Your task to perform on an android device: open app "WhatsApp Messenger" Image 0: 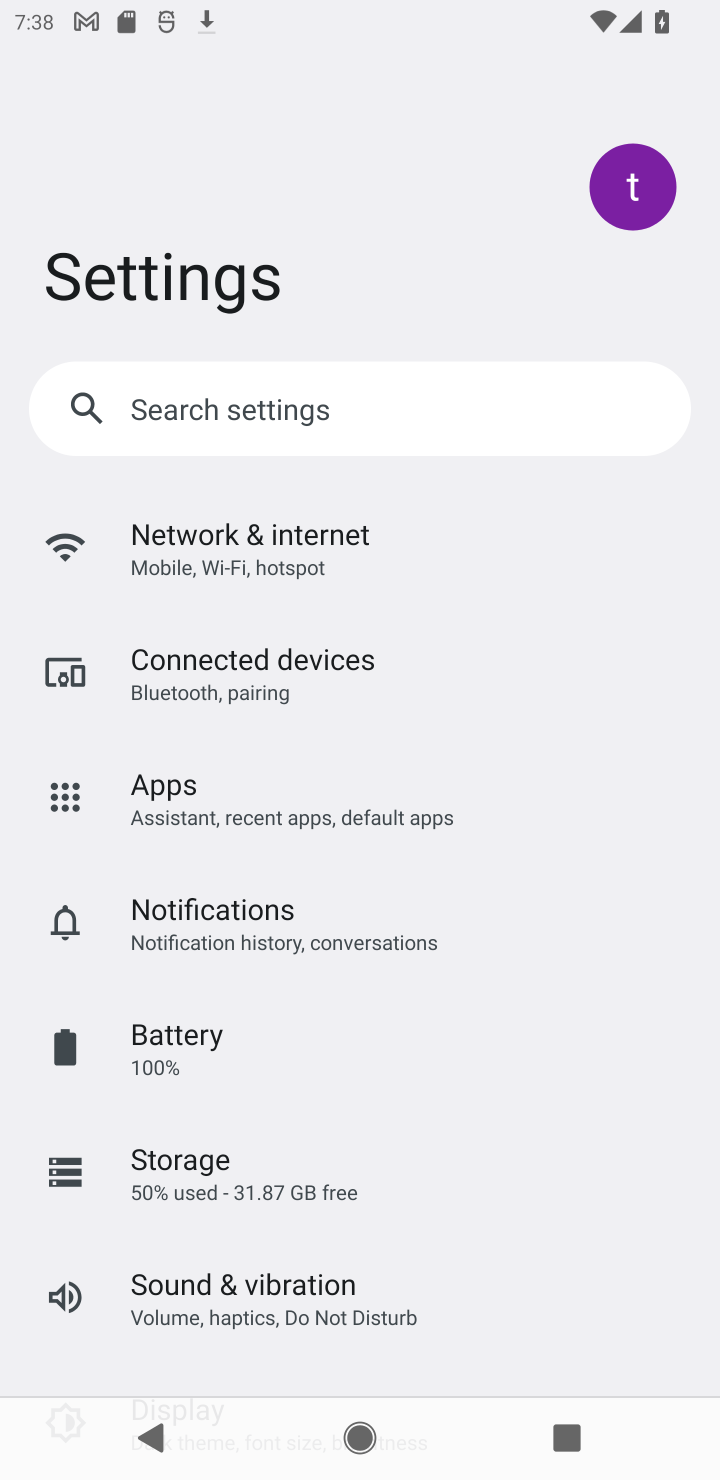
Step 0: press home button
Your task to perform on an android device: open app "WhatsApp Messenger" Image 1: 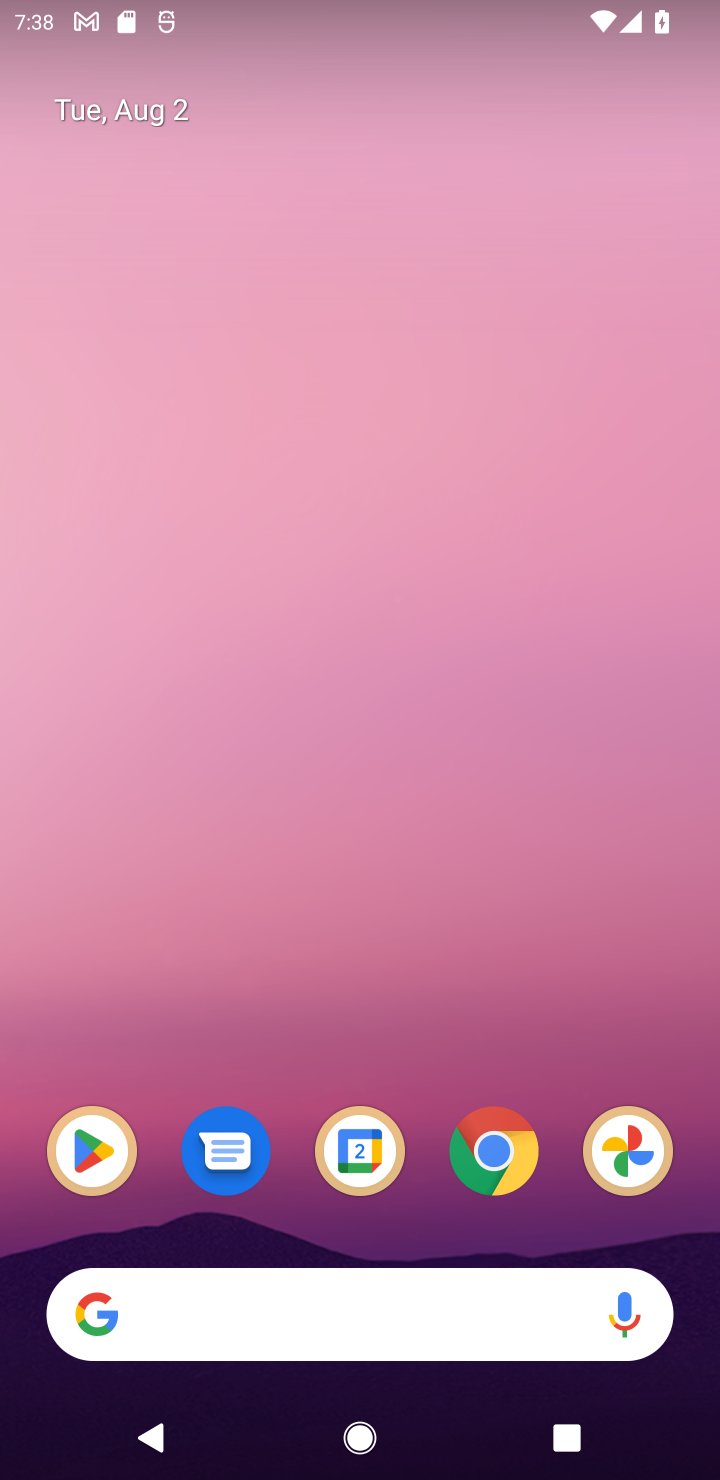
Step 1: drag from (406, 1041) to (673, 771)
Your task to perform on an android device: open app "WhatsApp Messenger" Image 2: 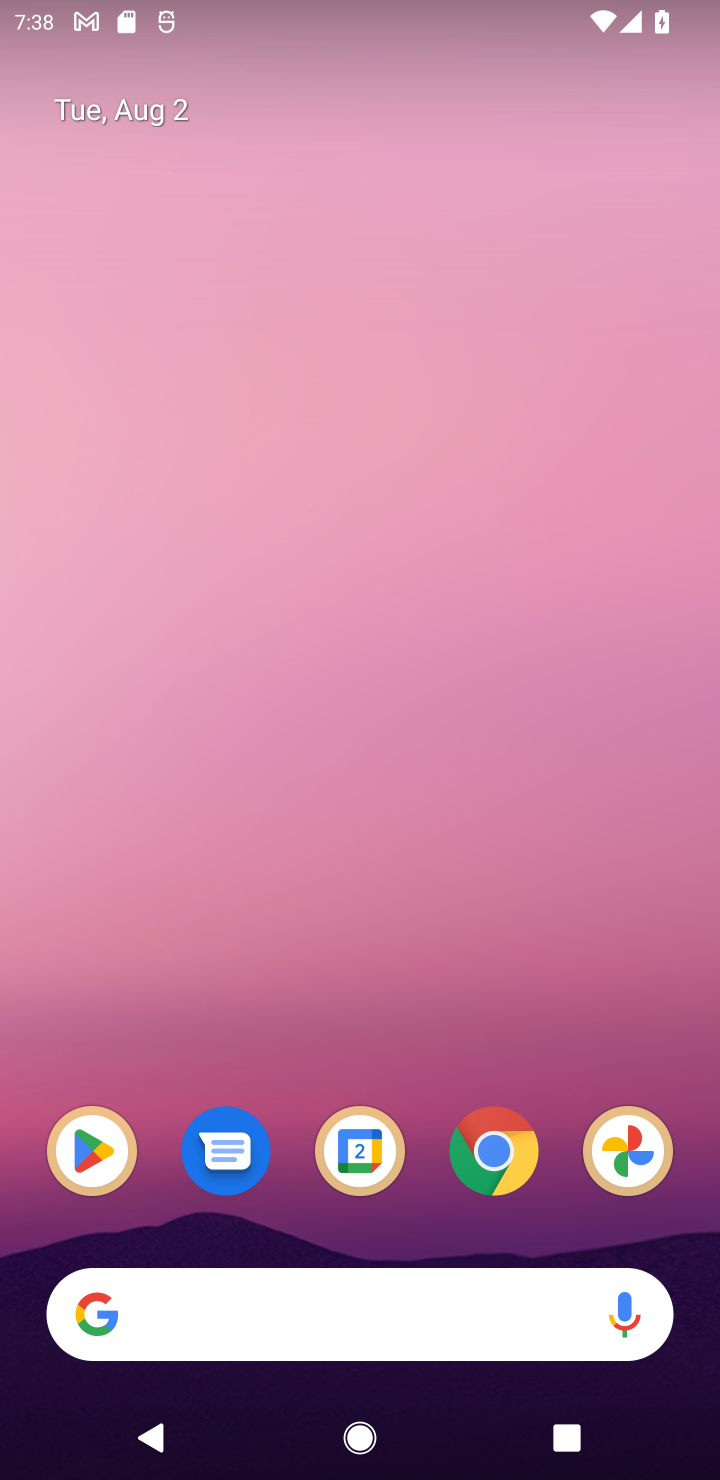
Step 2: click (76, 1184)
Your task to perform on an android device: open app "WhatsApp Messenger" Image 3: 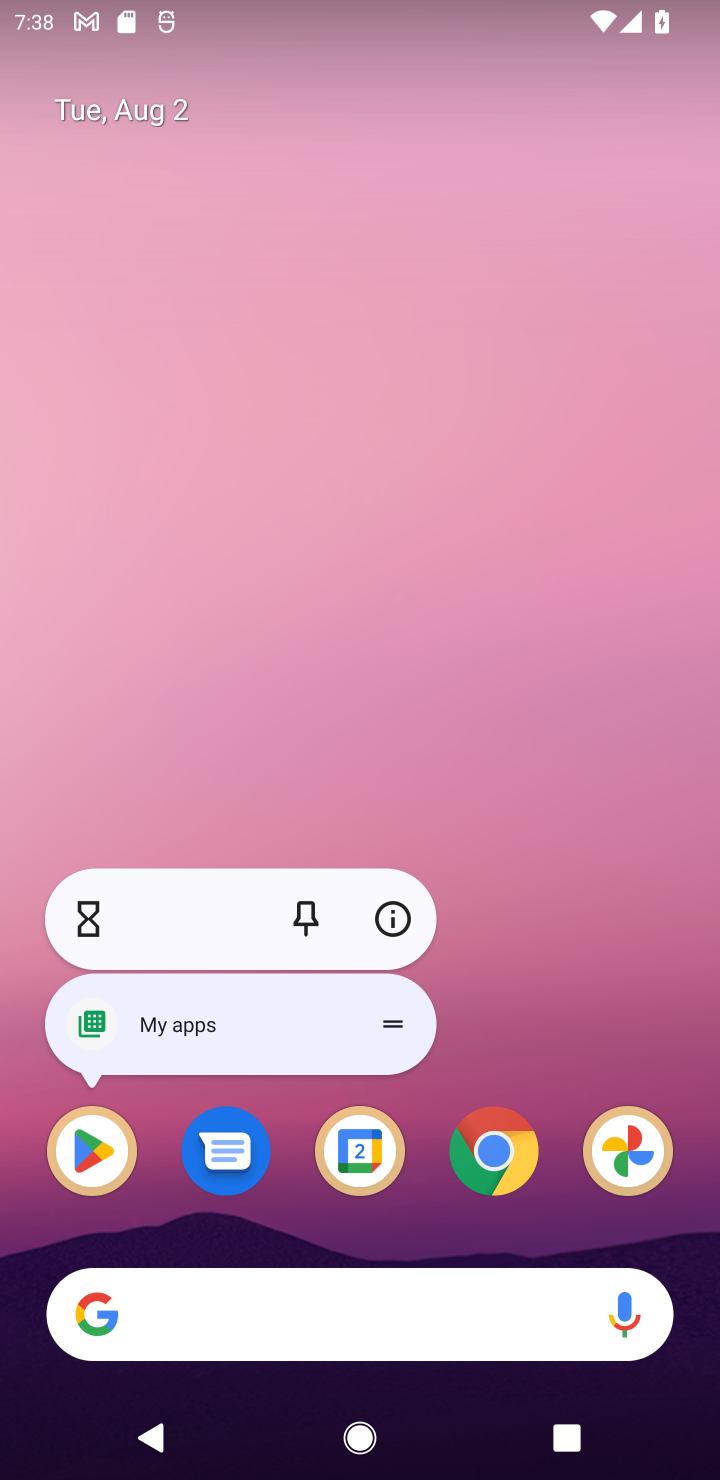
Step 3: click (91, 1168)
Your task to perform on an android device: open app "WhatsApp Messenger" Image 4: 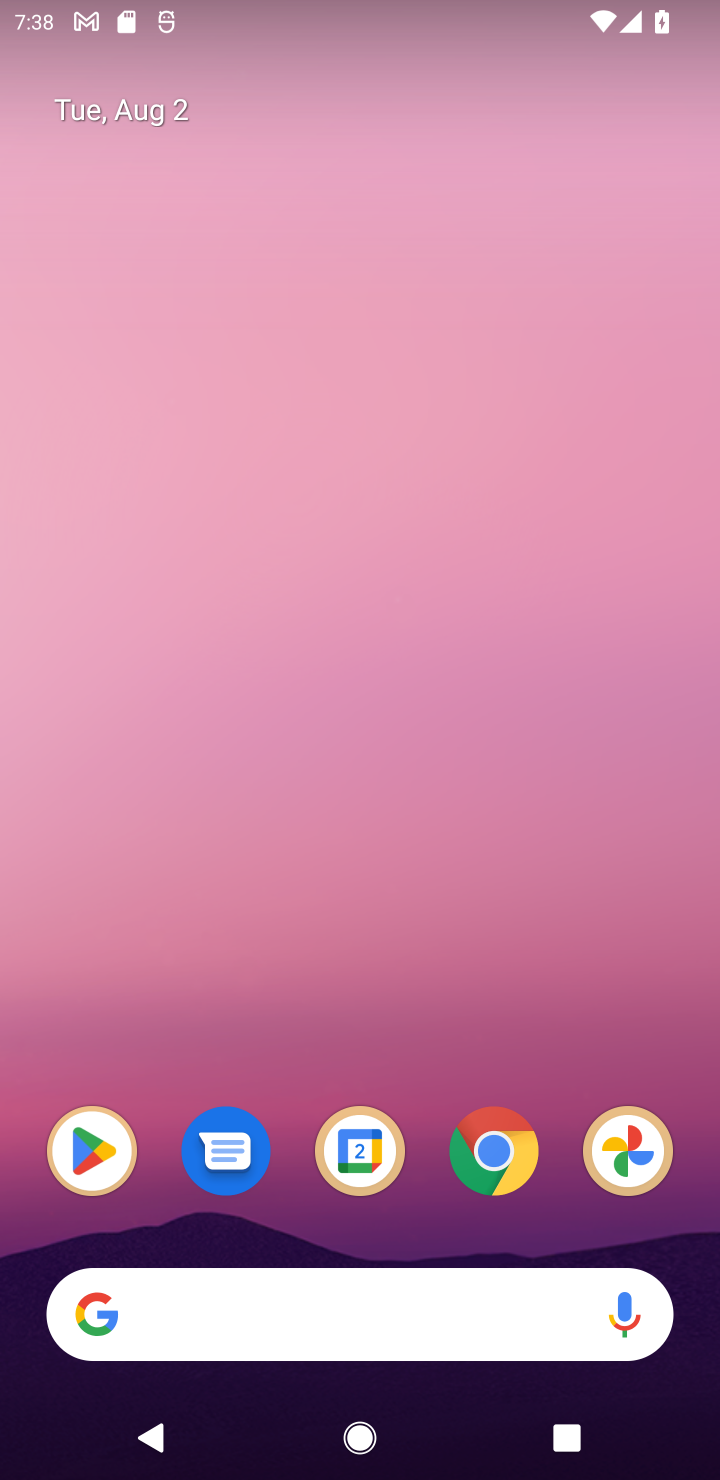
Step 4: click (91, 1168)
Your task to perform on an android device: open app "WhatsApp Messenger" Image 5: 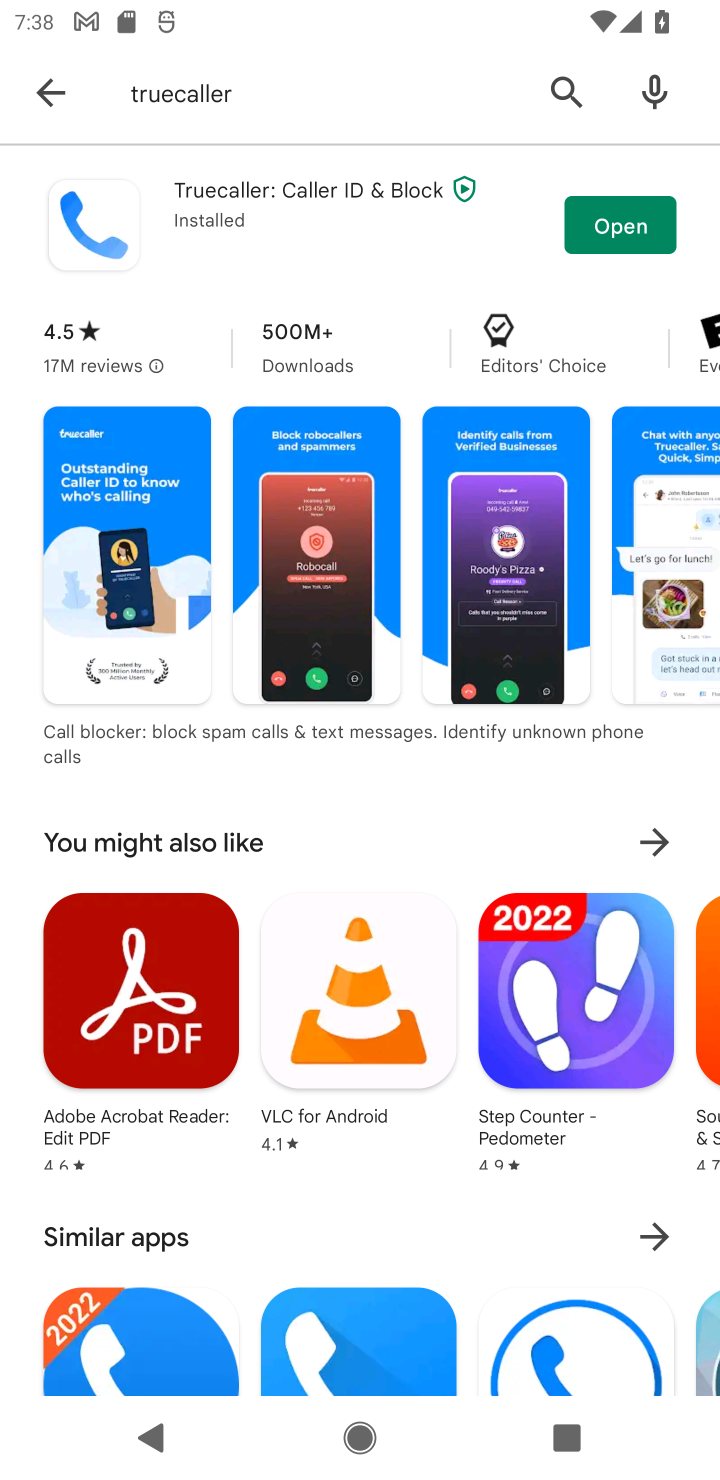
Step 5: click (91, 89)
Your task to perform on an android device: open app "WhatsApp Messenger" Image 6: 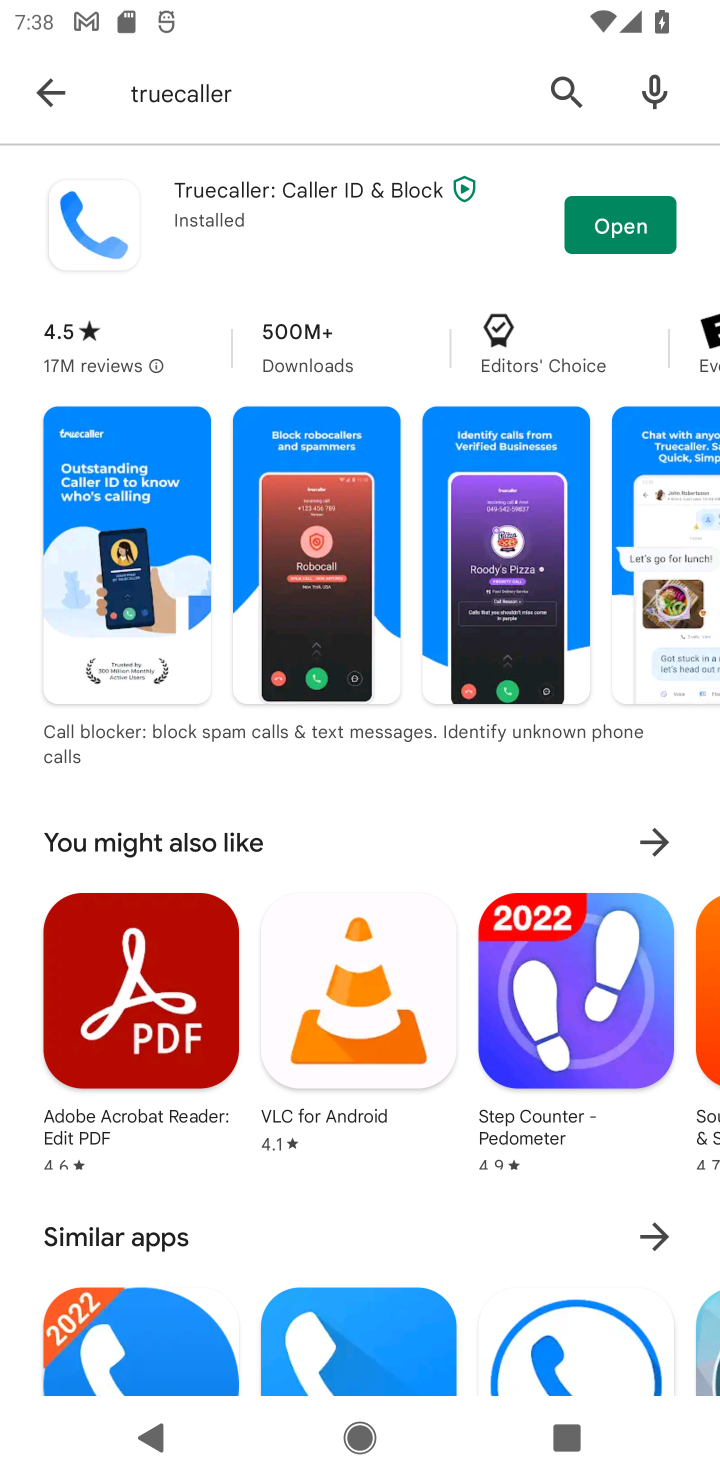
Step 6: click (46, 112)
Your task to perform on an android device: open app "WhatsApp Messenger" Image 7: 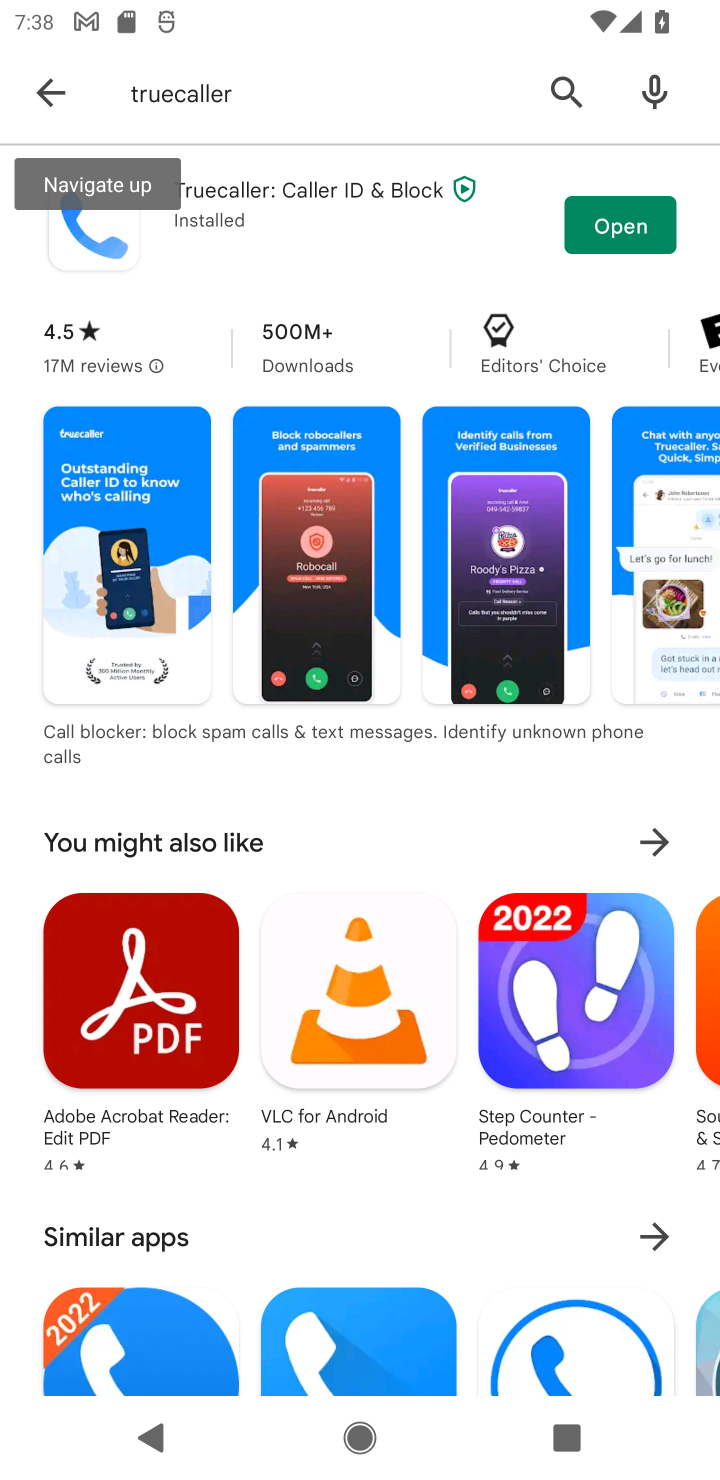
Step 7: click (46, 112)
Your task to perform on an android device: open app "WhatsApp Messenger" Image 8: 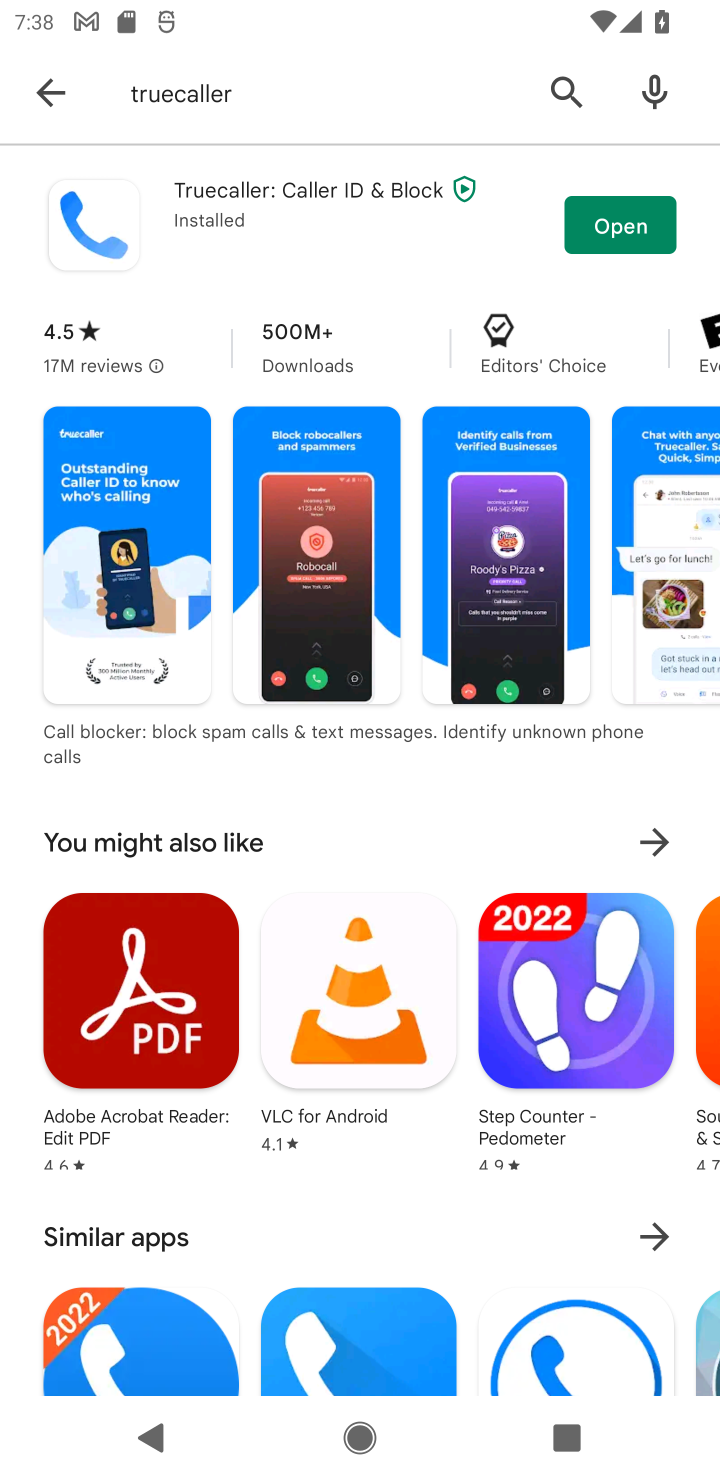
Step 8: click (46, 112)
Your task to perform on an android device: open app "WhatsApp Messenger" Image 9: 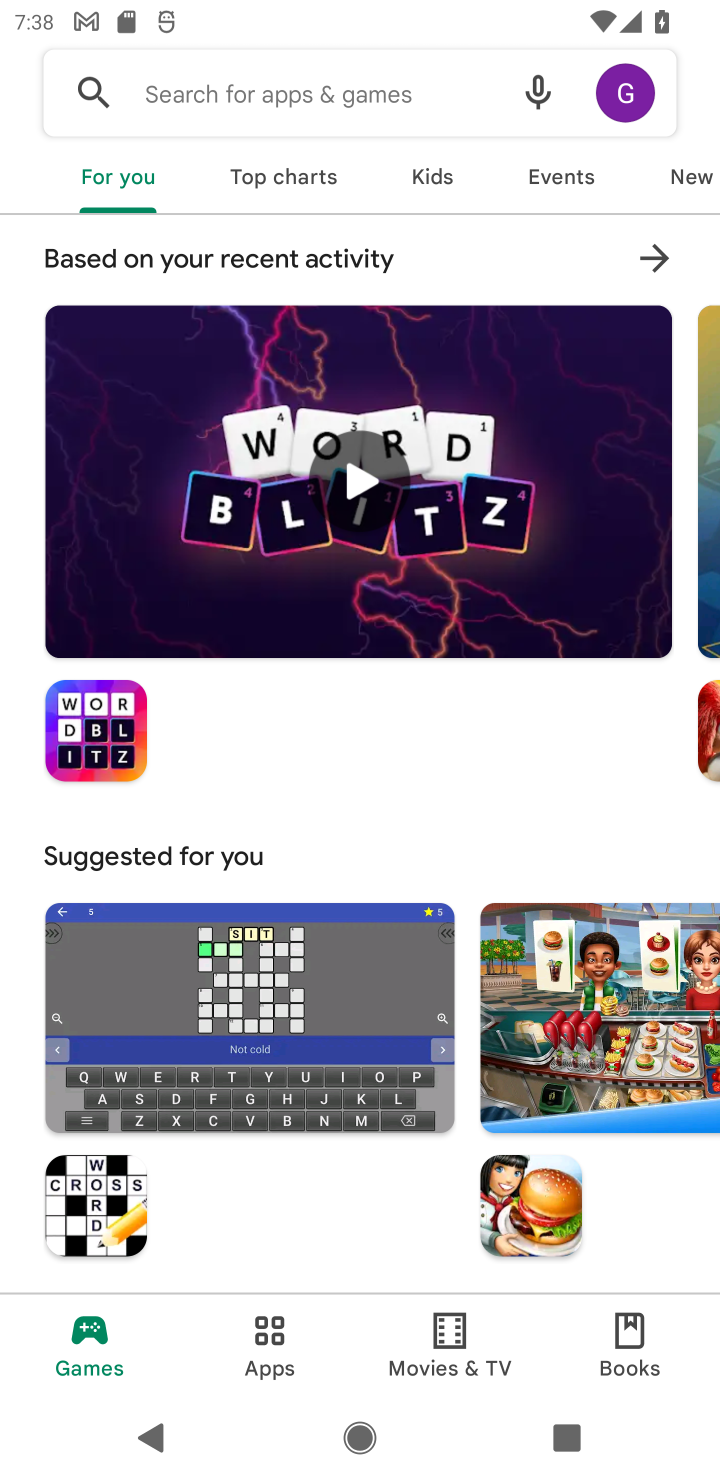
Step 9: click (355, 87)
Your task to perform on an android device: open app "WhatsApp Messenger" Image 10: 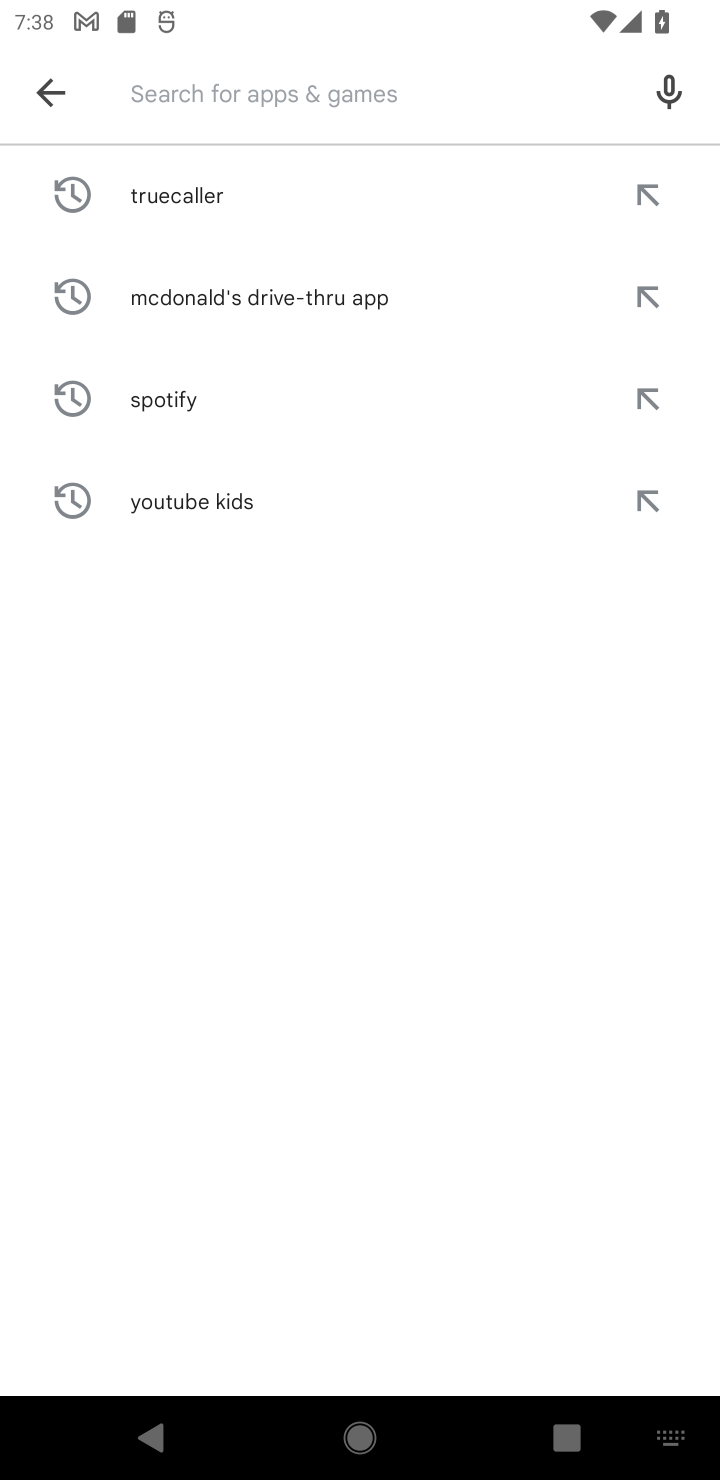
Step 10: type "WhatsApp Messenger"
Your task to perform on an android device: open app "WhatsApp Messenger" Image 11: 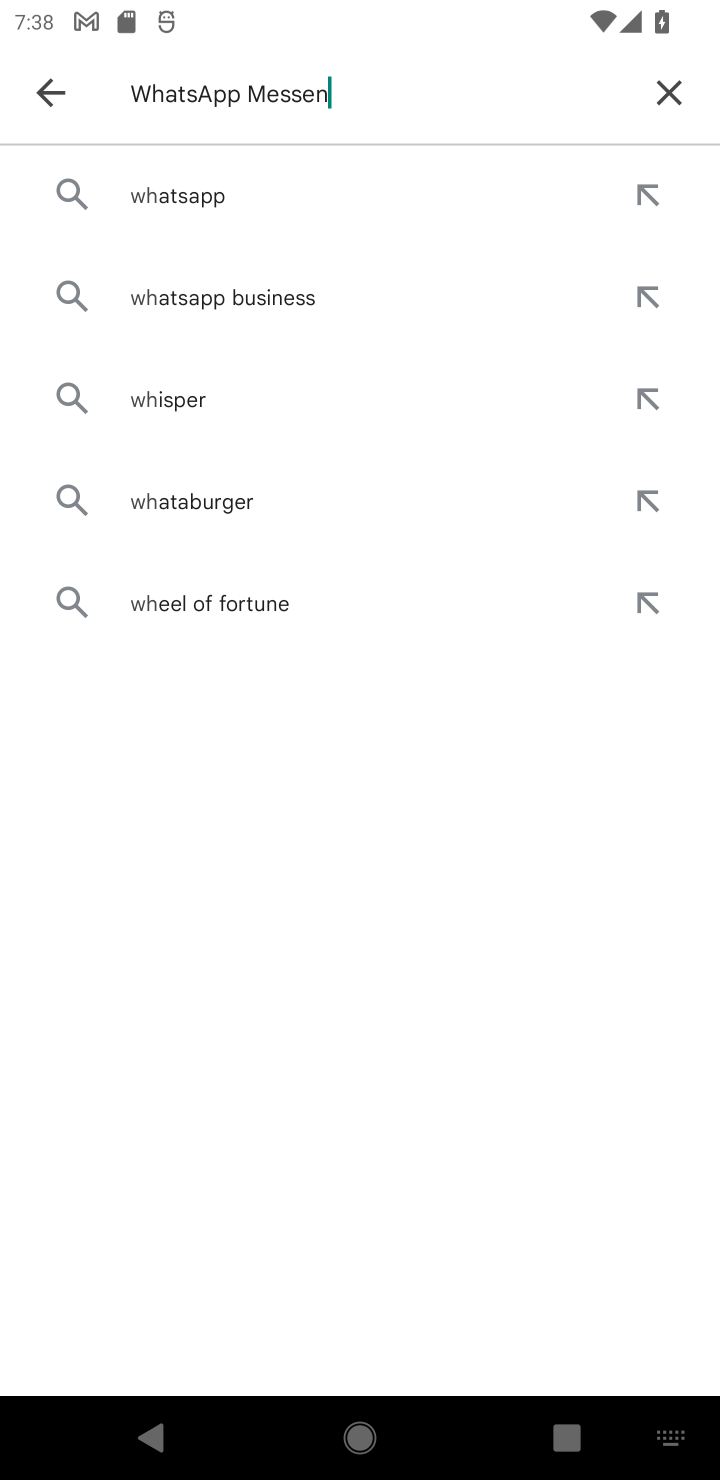
Step 11: type ""
Your task to perform on an android device: open app "WhatsApp Messenger" Image 12: 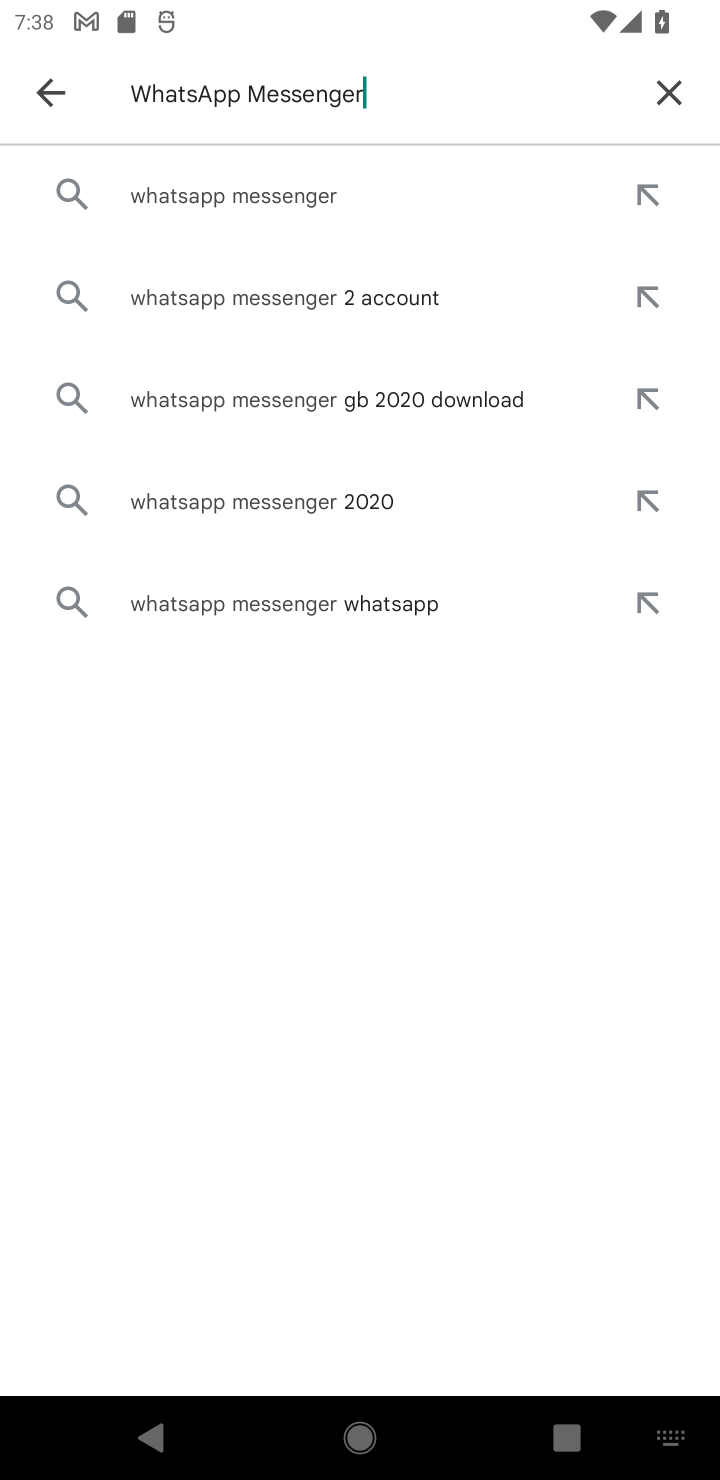
Step 12: click (257, 200)
Your task to perform on an android device: open app "WhatsApp Messenger" Image 13: 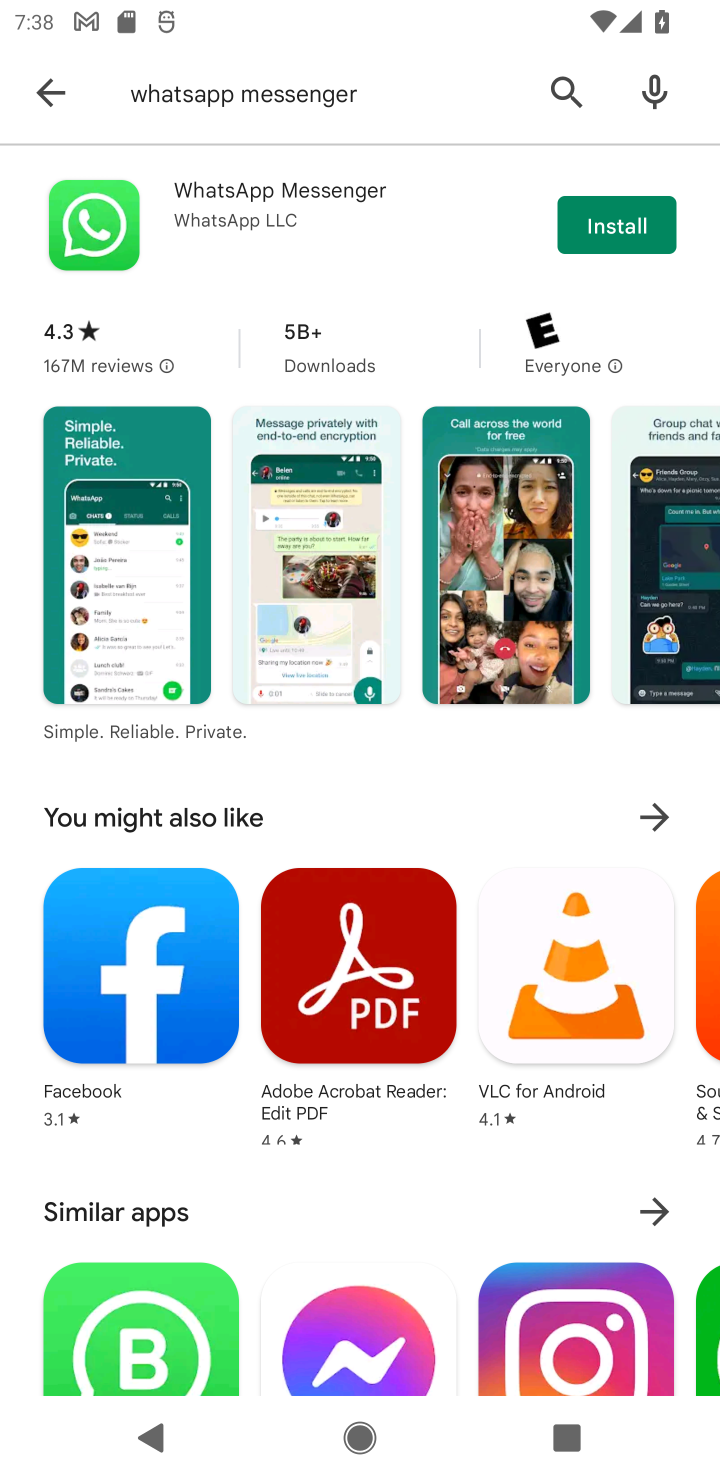
Step 13: click (203, 183)
Your task to perform on an android device: open app "WhatsApp Messenger" Image 14: 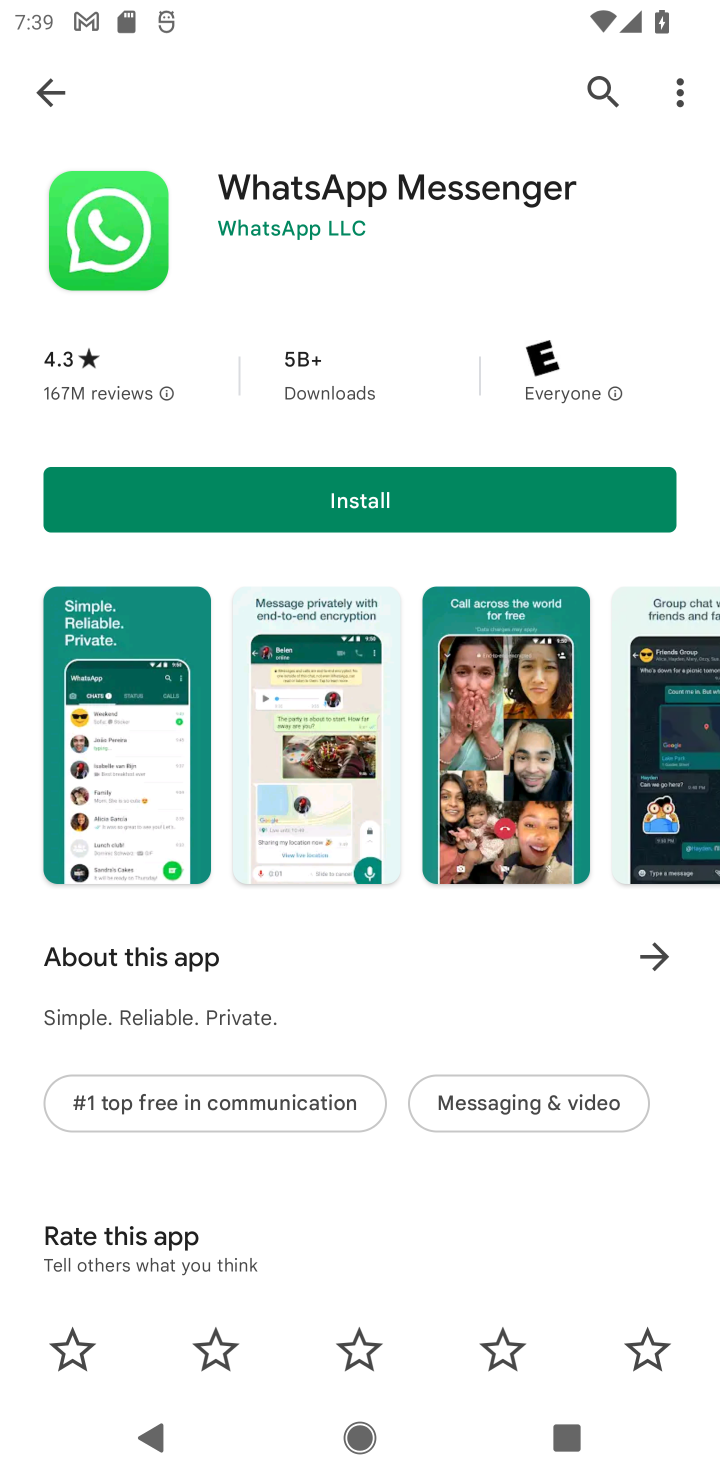
Step 14: task complete